Your task to perform on an android device: Turn off the flashlight Image 0: 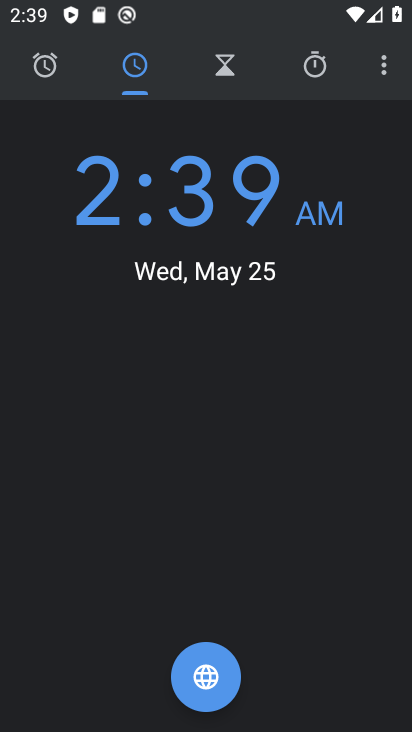
Step 0: press home button
Your task to perform on an android device: Turn off the flashlight Image 1: 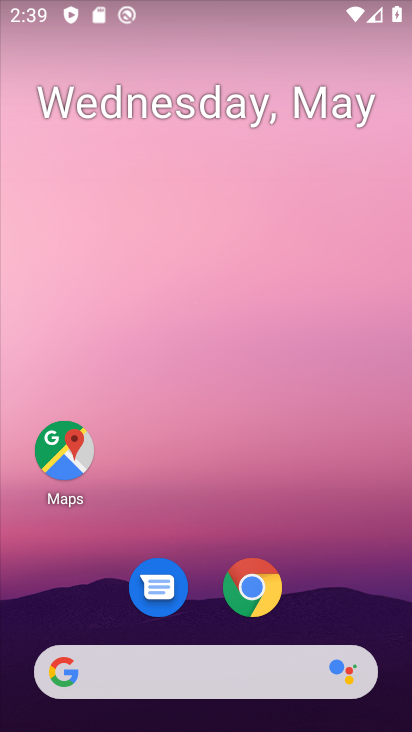
Step 1: drag from (231, 580) to (238, 213)
Your task to perform on an android device: Turn off the flashlight Image 2: 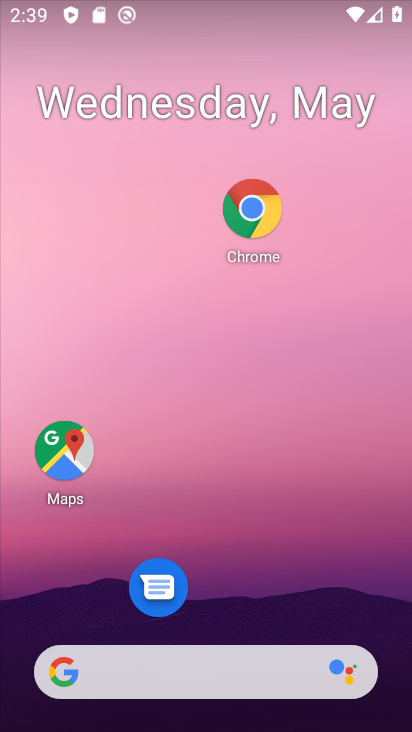
Step 2: drag from (221, 598) to (247, 64)
Your task to perform on an android device: Turn off the flashlight Image 3: 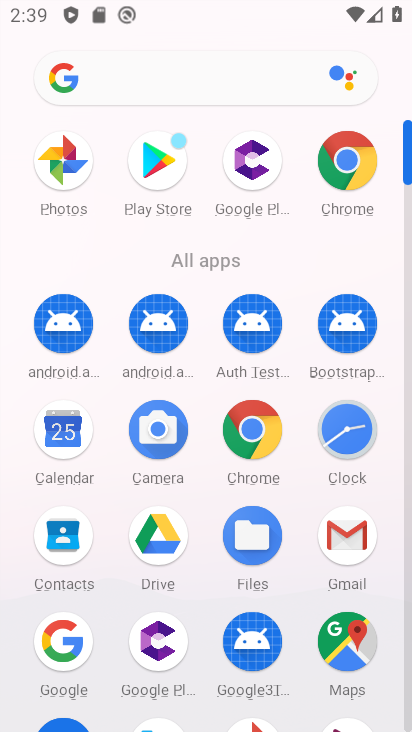
Step 3: drag from (210, 681) to (243, 168)
Your task to perform on an android device: Turn off the flashlight Image 4: 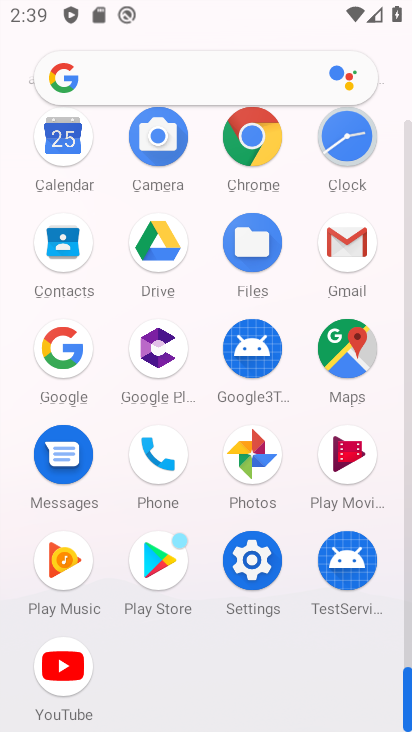
Step 4: click (248, 556)
Your task to perform on an android device: Turn off the flashlight Image 5: 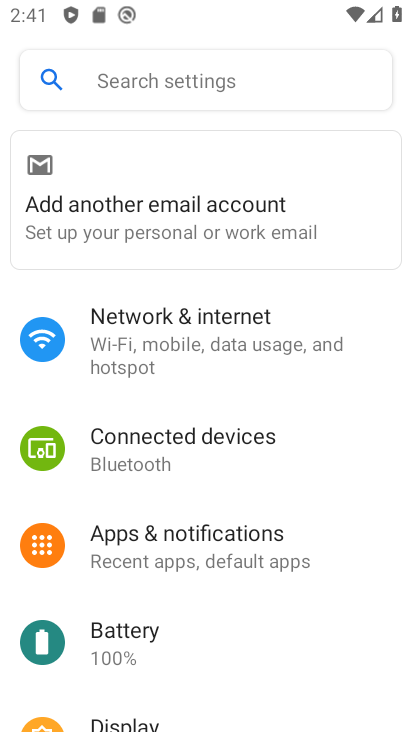
Step 5: task complete